Your task to perform on an android device: turn on sleep mode Image 0: 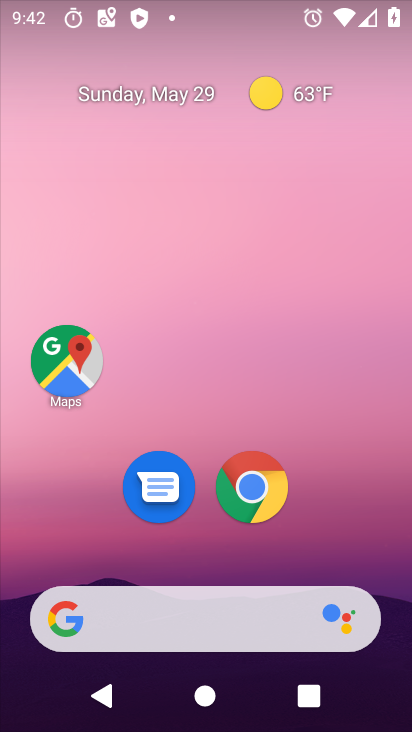
Step 0: drag from (195, 578) to (150, 188)
Your task to perform on an android device: turn on sleep mode Image 1: 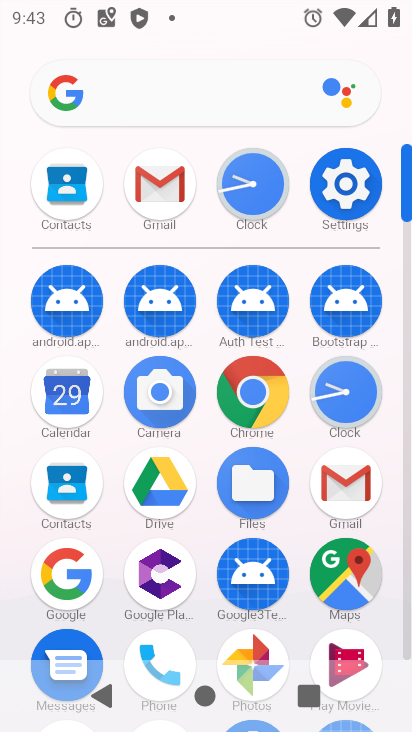
Step 1: drag from (247, 441) to (247, 218)
Your task to perform on an android device: turn on sleep mode Image 2: 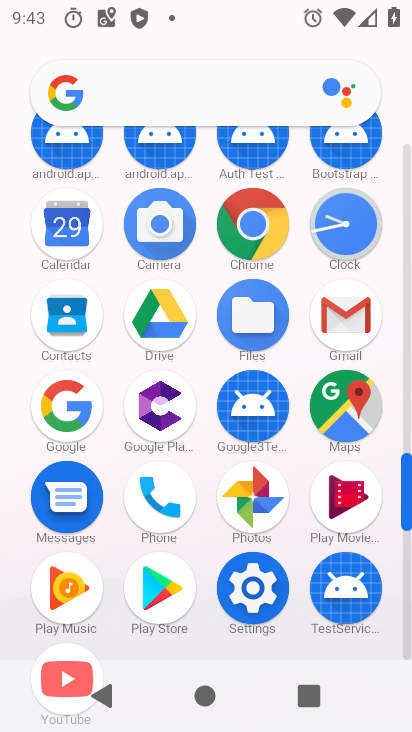
Step 2: drag from (321, 416) to (319, 716)
Your task to perform on an android device: turn on sleep mode Image 3: 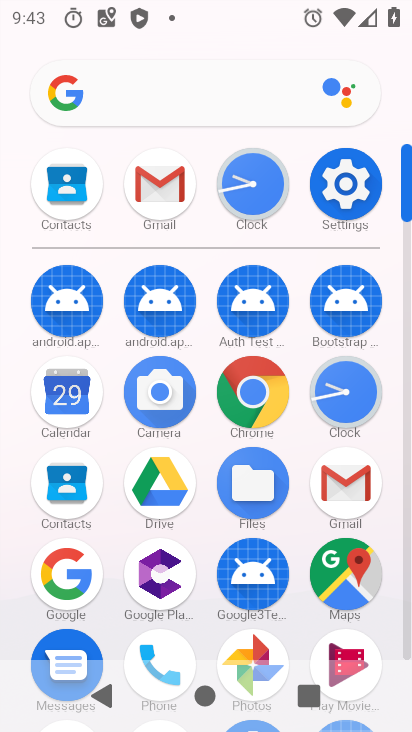
Step 3: click (344, 198)
Your task to perform on an android device: turn on sleep mode Image 4: 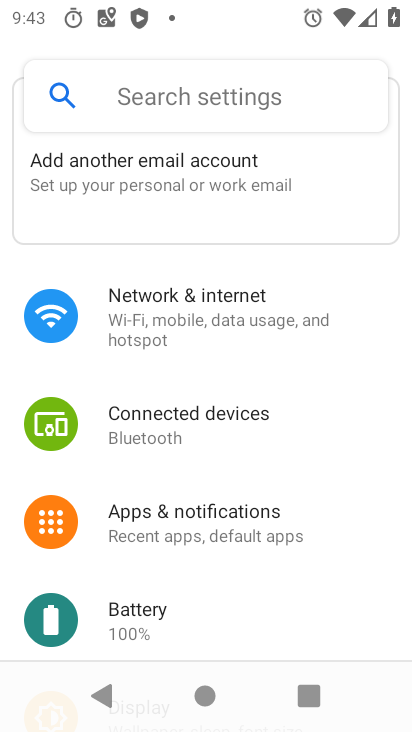
Step 4: drag from (217, 541) to (283, 2)
Your task to perform on an android device: turn on sleep mode Image 5: 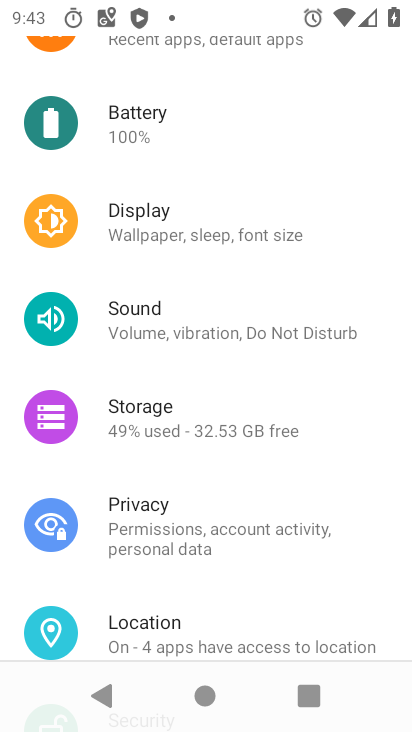
Step 5: click (192, 236)
Your task to perform on an android device: turn on sleep mode Image 6: 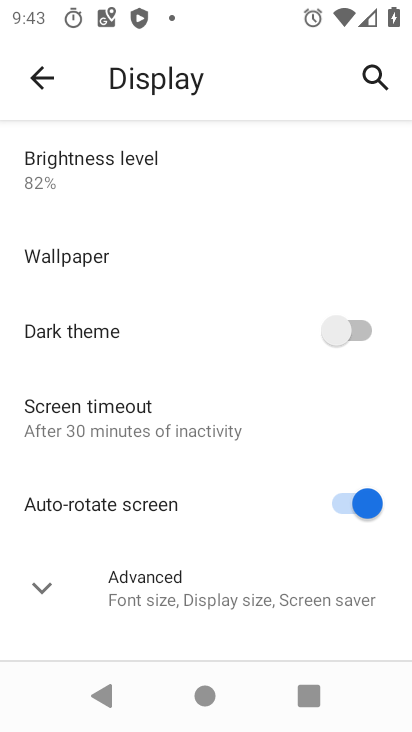
Step 6: click (191, 569)
Your task to perform on an android device: turn on sleep mode Image 7: 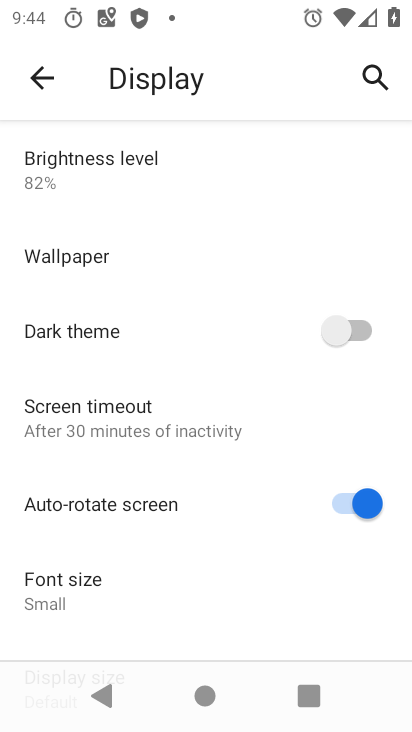
Step 7: task complete